Your task to perform on an android device: What's the weather going to be tomorrow? Image 0: 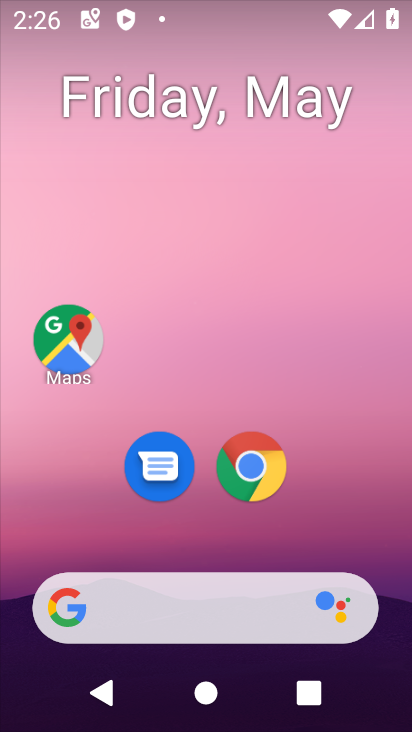
Step 0: click (151, 615)
Your task to perform on an android device: What's the weather going to be tomorrow? Image 1: 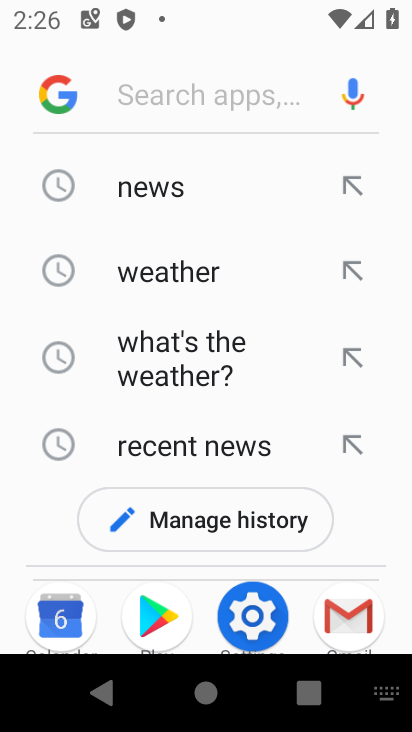
Step 1: click (145, 275)
Your task to perform on an android device: What's the weather going to be tomorrow? Image 2: 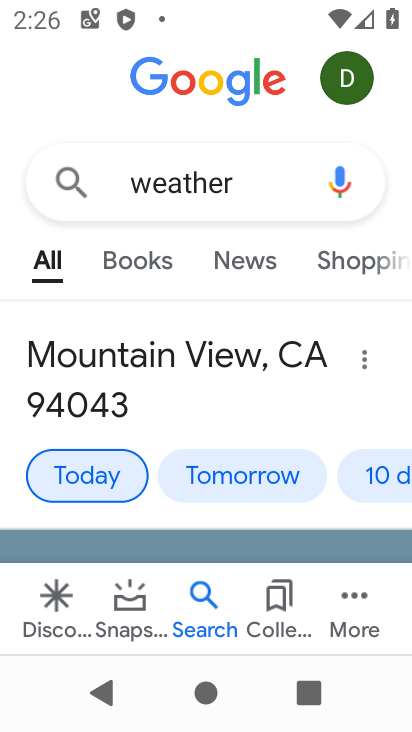
Step 2: click (253, 470)
Your task to perform on an android device: What's the weather going to be tomorrow? Image 3: 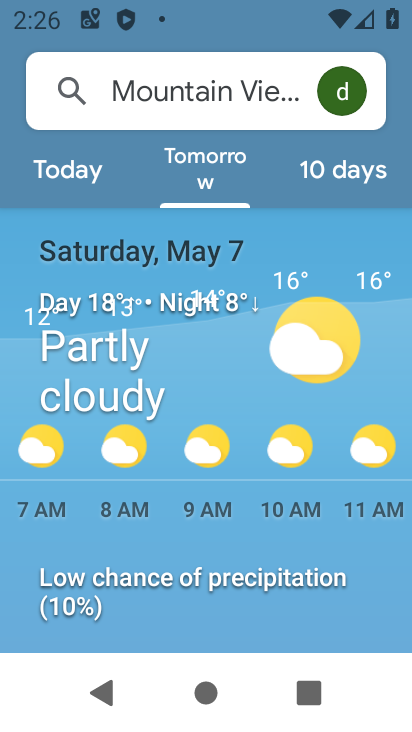
Step 3: task complete